Your task to perform on an android device: add a contact Image 0: 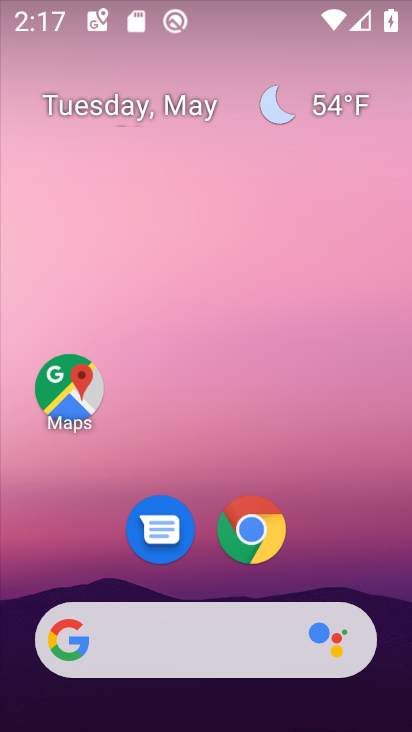
Step 0: drag from (262, 571) to (281, 174)
Your task to perform on an android device: add a contact Image 1: 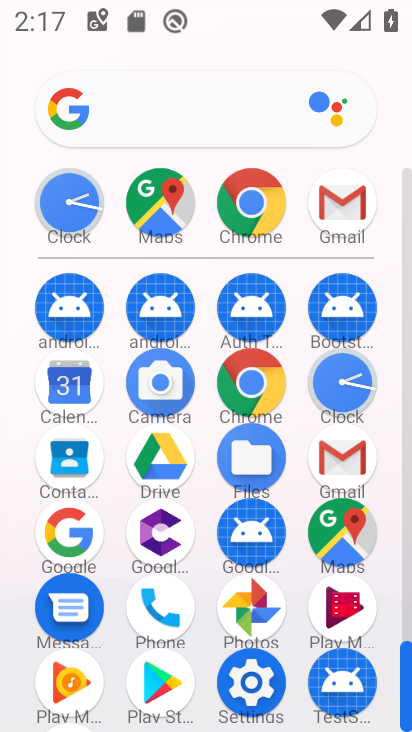
Step 1: drag from (189, 597) to (209, 407)
Your task to perform on an android device: add a contact Image 2: 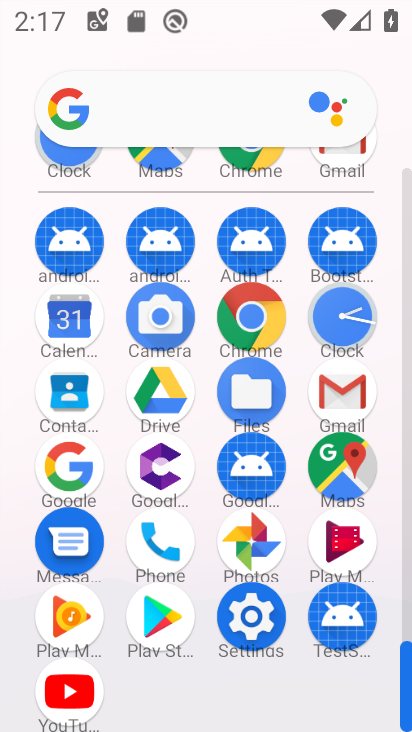
Step 2: click (152, 530)
Your task to perform on an android device: add a contact Image 3: 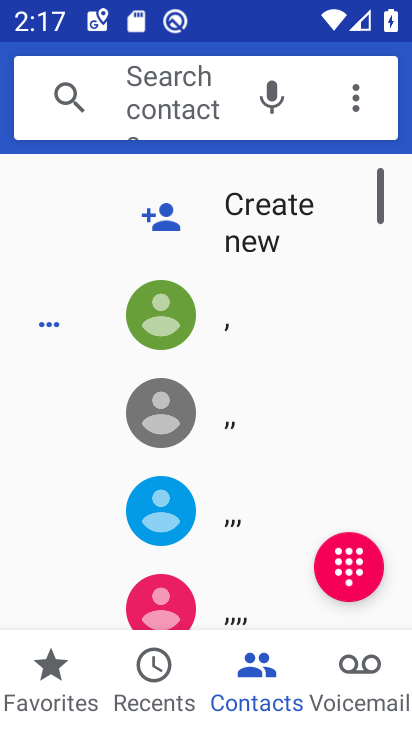
Step 3: click (205, 218)
Your task to perform on an android device: add a contact Image 4: 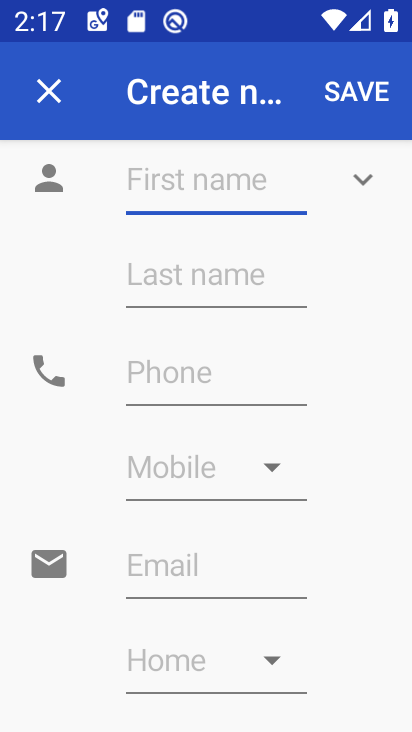
Step 4: type "oojoojjojojjojo"
Your task to perform on an android device: add a contact Image 5: 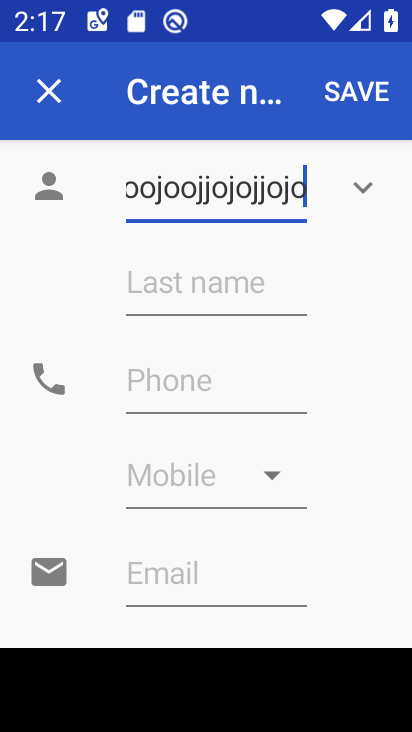
Step 5: click (168, 359)
Your task to perform on an android device: add a contact Image 6: 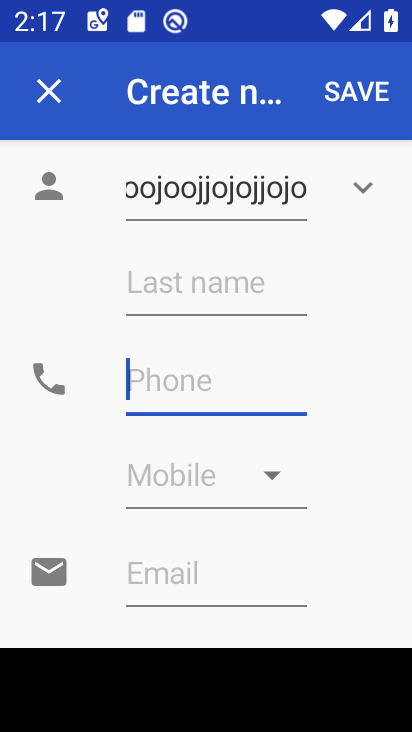
Step 6: type "1234567890"
Your task to perform on an android device: add a contact Image 7: 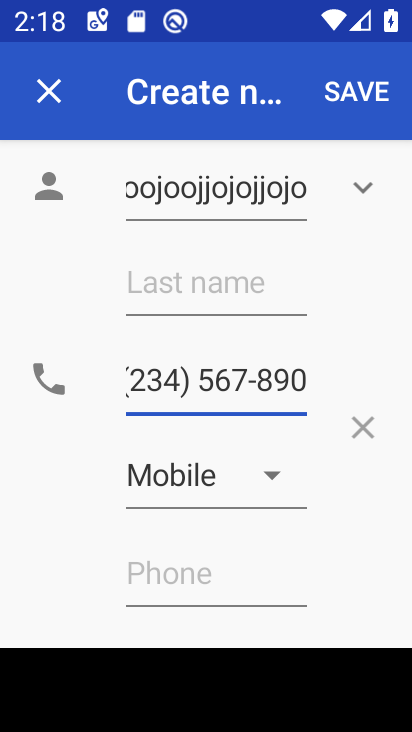
Step 7: click (366, 103)
Your task to perform on an android device: add a contact Image 8: 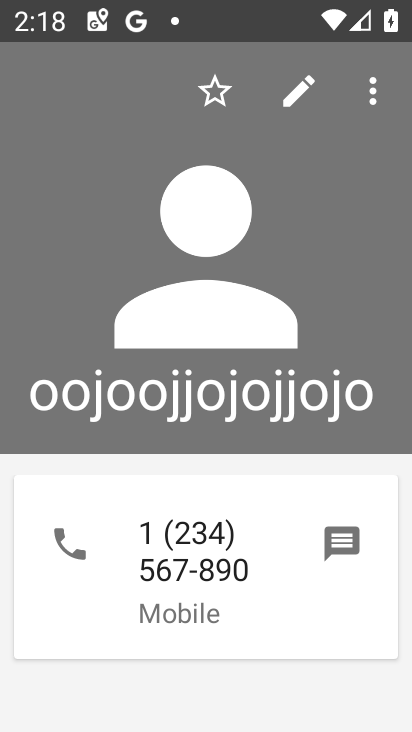
Step 8: task complete